Your task to perform on an android device: turn on location history Image 0: 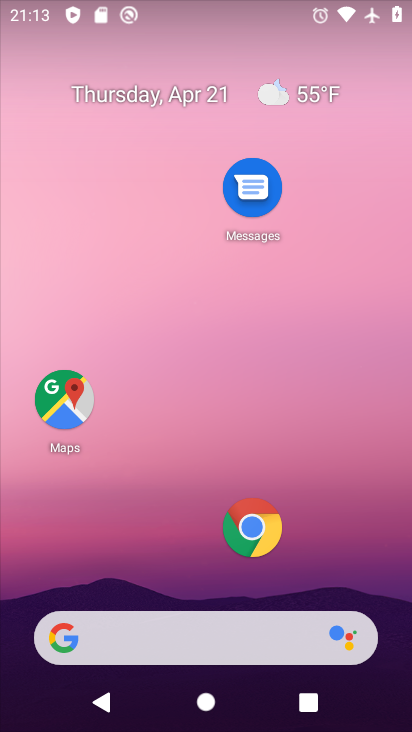
Step 0: drag from (151, 605) to (271, 192)
Your task to perform on an android device: turn on location history Image 1: 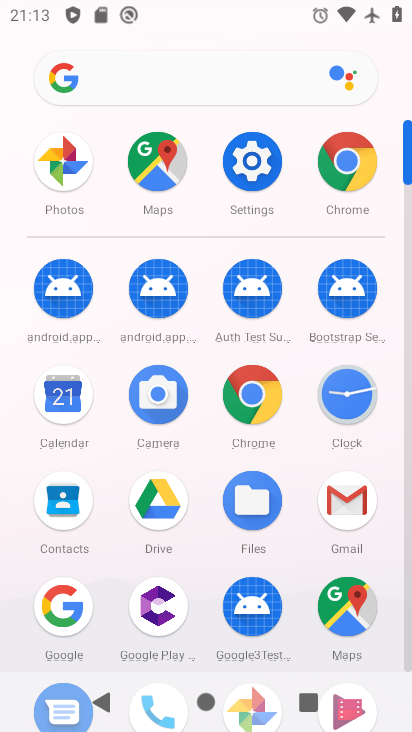
Step 1: click (261, 171)
Your task to perform on an android device: turn on location history Image 2: 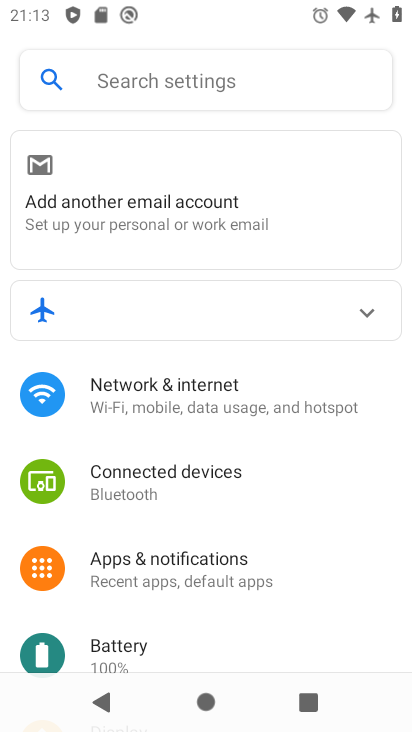
Step 2: drag from (185, 603) to (328, 163)
Your task to perform on an android device: turn on location history Image 3: 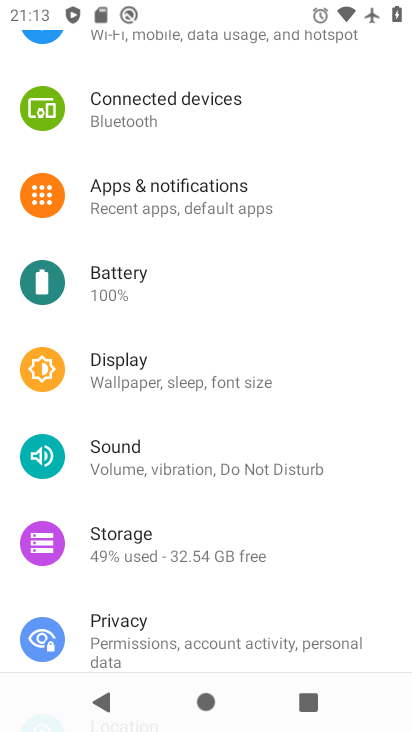
Step 3: drag from (185, 589) to (309, 282)
Your task to perform on an android device: turn on location history Image 4: 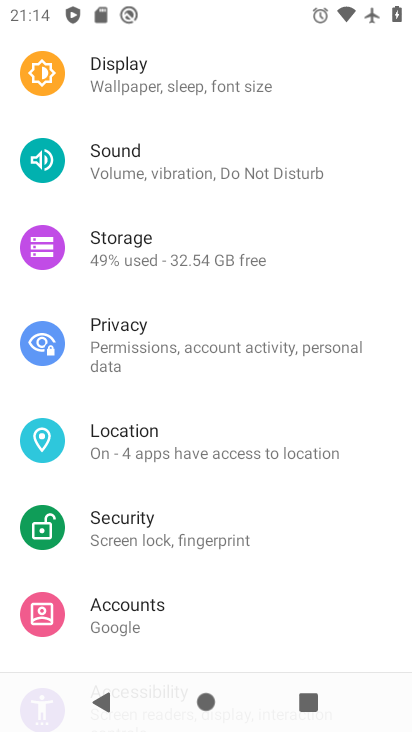
Step 4: click (150, 444)
Your task to perform on an android device: turn on location history Image 5: 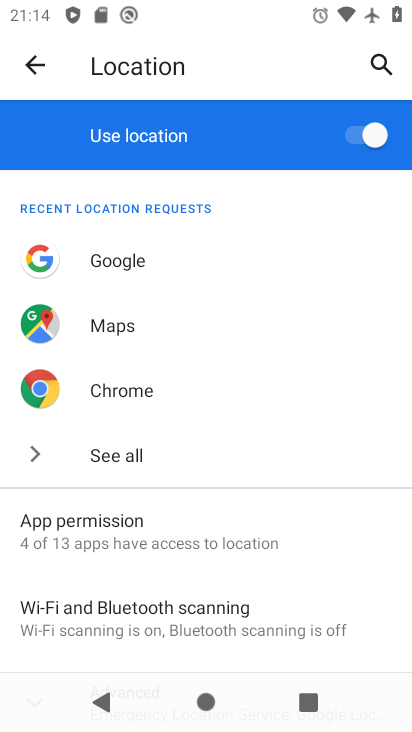
Step 5: drag from (129, 592) to (355, 240)
Your task to perform on an android device: turn on location history Image 6: 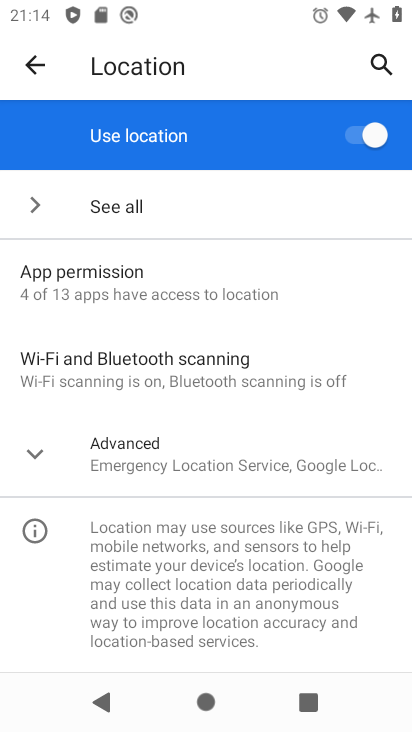
Step 6: click (103, 455)
Your task to perform on an android device: turn on location history Image 7: 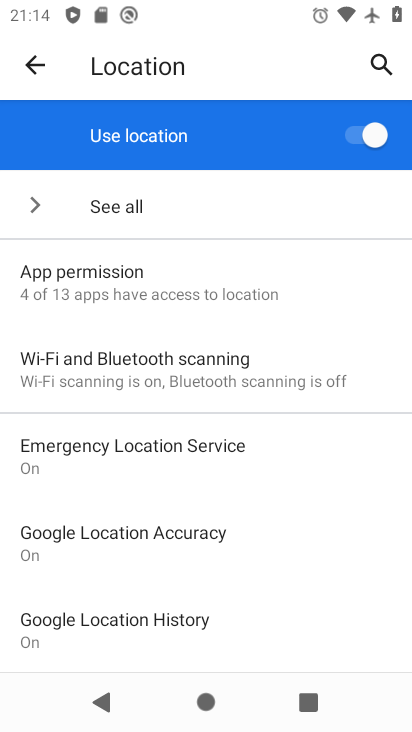
Step 7: drag from (161, 559) to (304, 318)
Your task to perform on an android device: turn on location history Image 8: 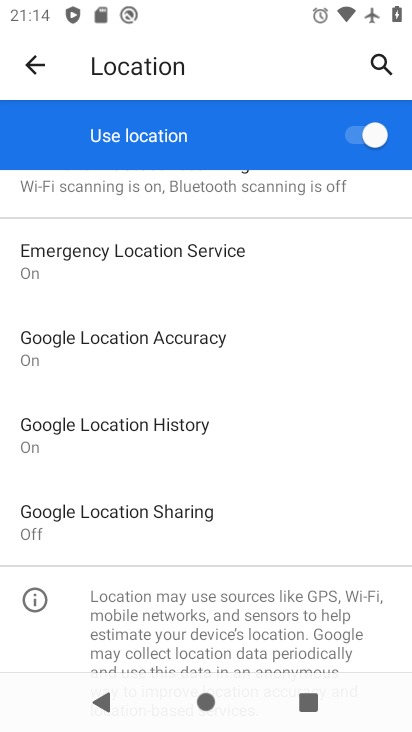
Step 8: click (157, 433)
Your task to perform on an android device: turn on location history Image 9: 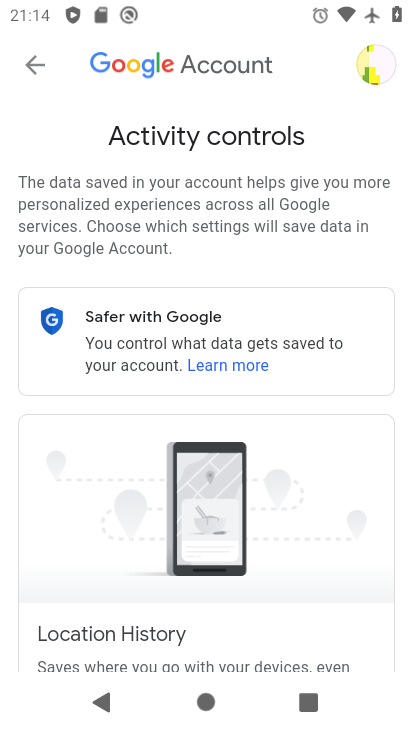
Step 9: drag from (111, 593) to (314, 108)
Your task to perform on an android device: turn on location history Image 10: 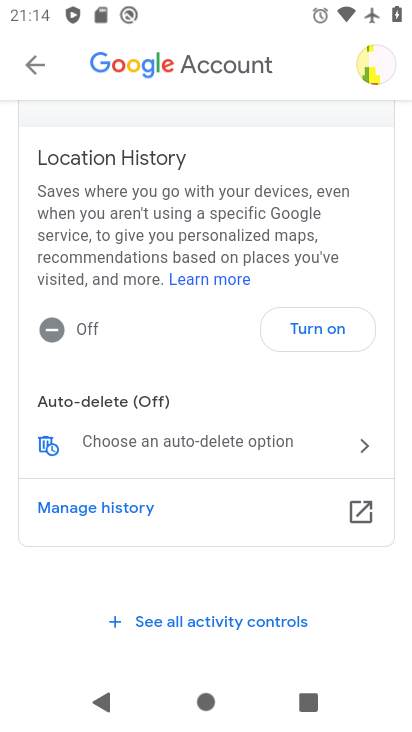
Step 10: click (319, 326)
Your task to perform on an android device: turn on location history Image 11: 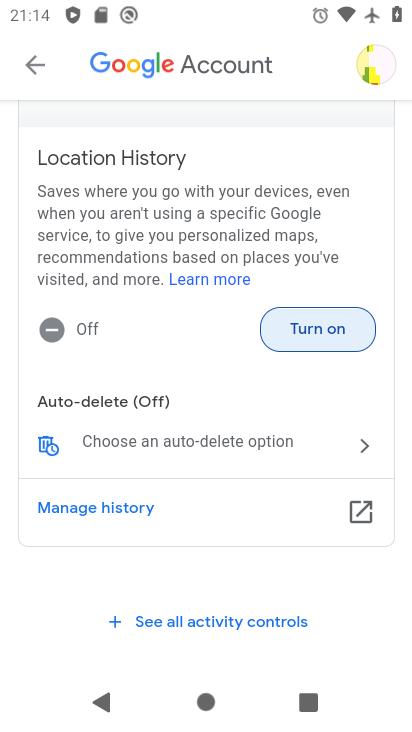
Step 11: click (318, 329)
Your task to perform on an android device: turn on location history Image 12: 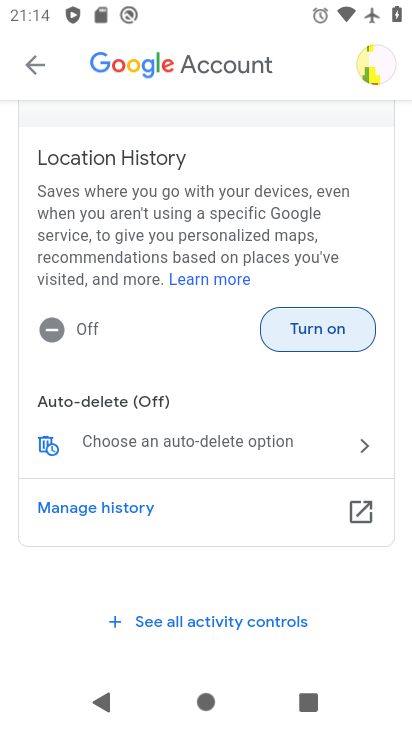
Step 12: click (305, 330)
Your task to perform on an android device: turn on location history Image 13: 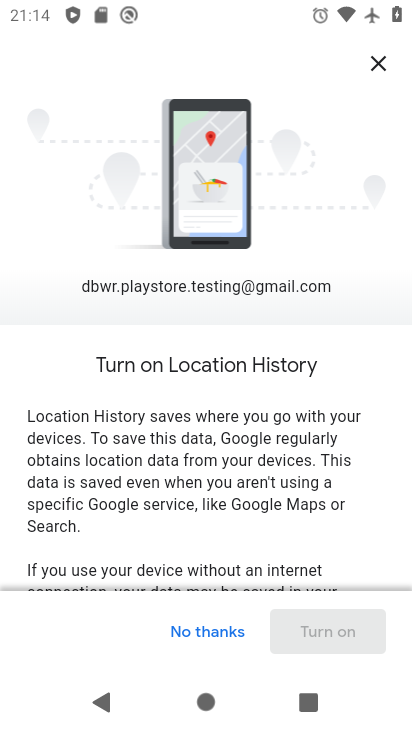
Step 13: drag from (181, 542) to (321, 55)
Your task to perform on an android device: turn on location history Image 14: 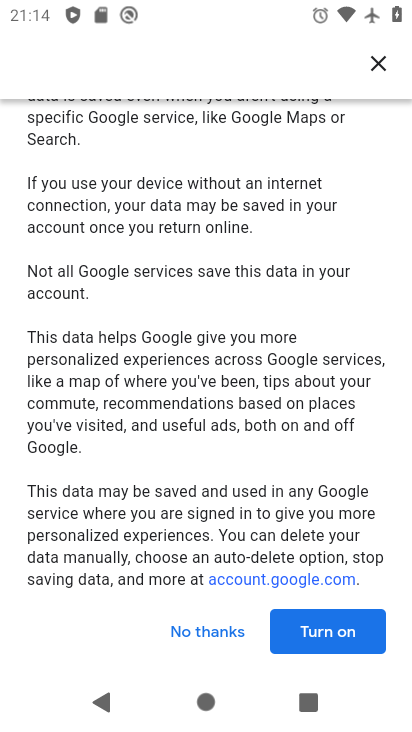
Step 14: click (338, 631)
Your task to perform on an android device: turn on location history Image 15: 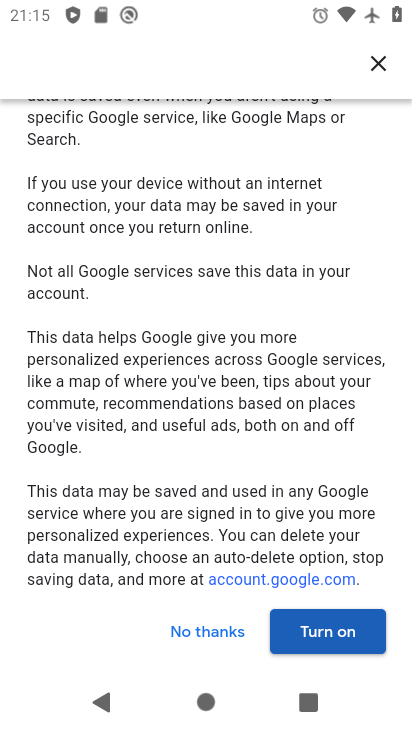
Step 15: click (324, 633)
Your task to perform on an android device: turn on location history Image 16: 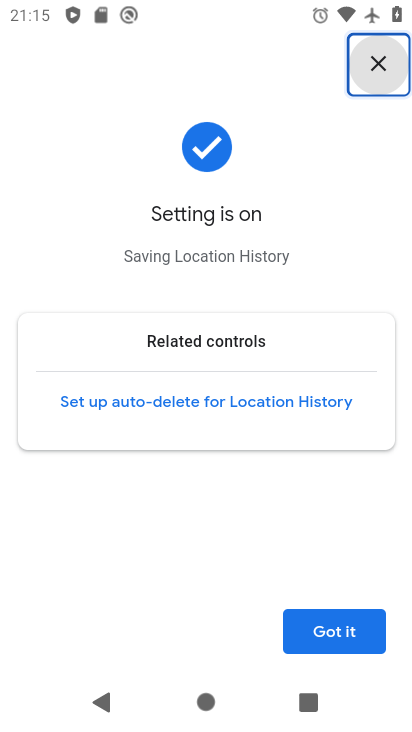
Step 16: click (325, 625)
Your task to perform on an android device: turn on location history Image 17: 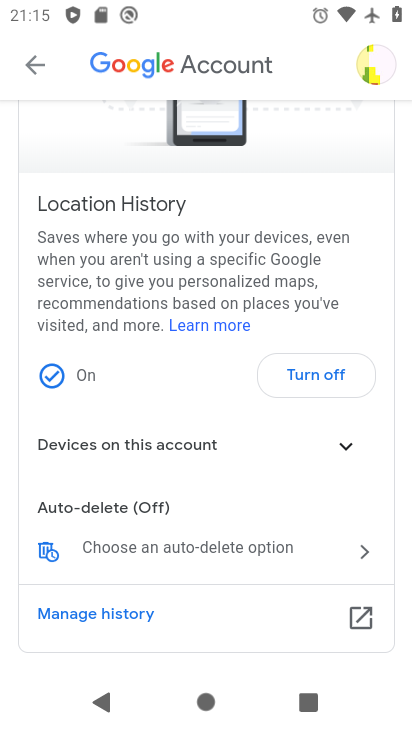
Step 17: task complete